Your task to perform on an android device: move a message to another label in the gmail app Image 0: 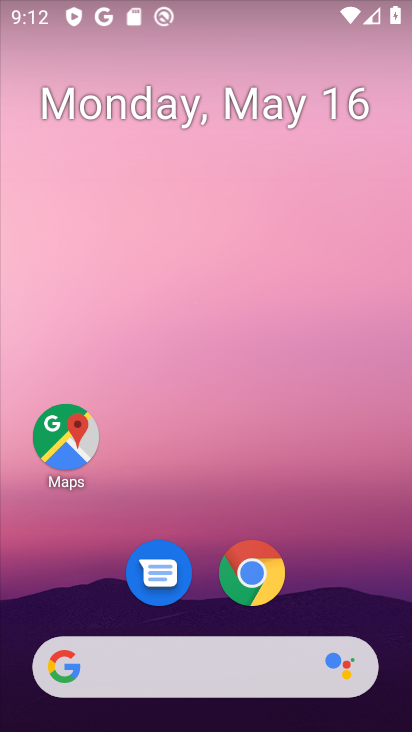
Step 0: drag from (373, 588) to (361, 164)
Your task to perform on an android device: move a message to another label in the gmail app Image 1: 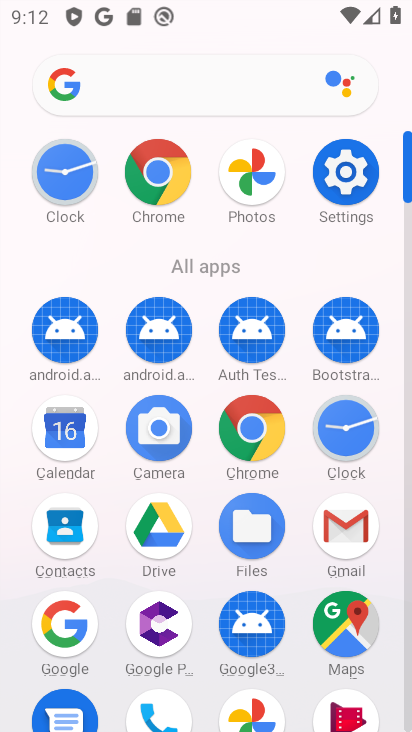
Step 1: click (340, 528)
Your task to perform on an android device: move a message to another label in the gmail app Image 2: 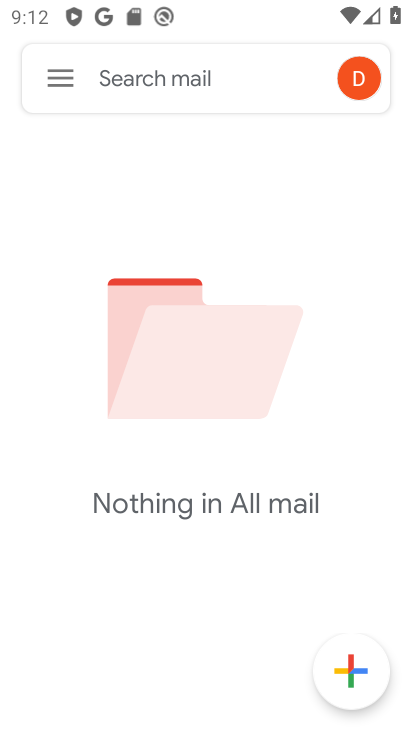
Step 2: click (63, 79)
Your task to perform on an android device: move a message to another label in the gmail app Image 3: 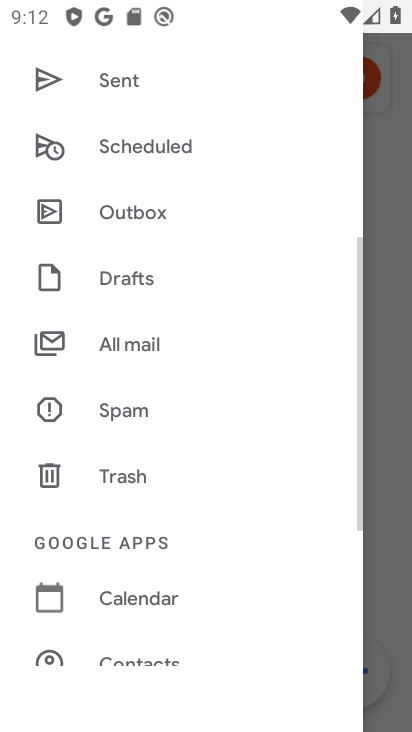
Step 3: drag from (239, 622) to (272, 256)
Your task to perform on an android device: move a message to another label in the gmail app Image 4: 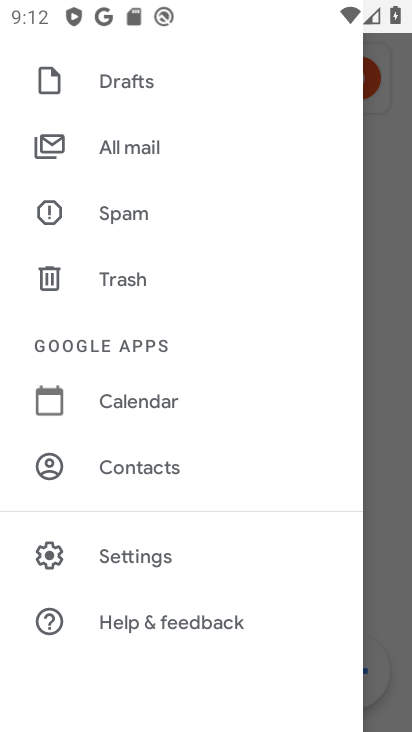
Step 4: drag from (159, 178) to (213, 685)
Your task to perform on an android device: move a message to another label in the gmail app Image 5: 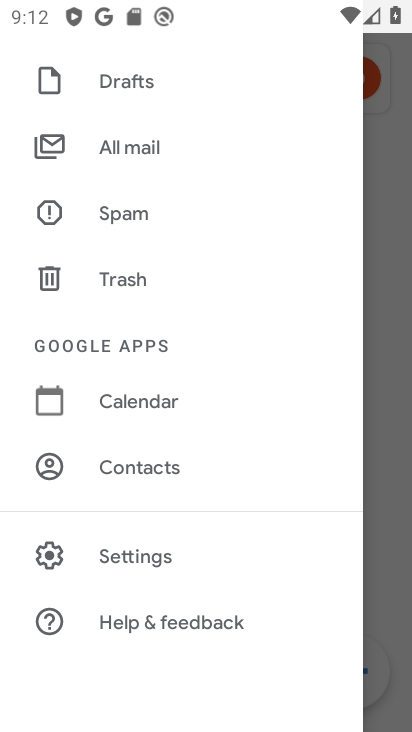
Step 5: click (143, 145)
Your task to perform on an android device: move a message to another label in the gmail app Image 6: 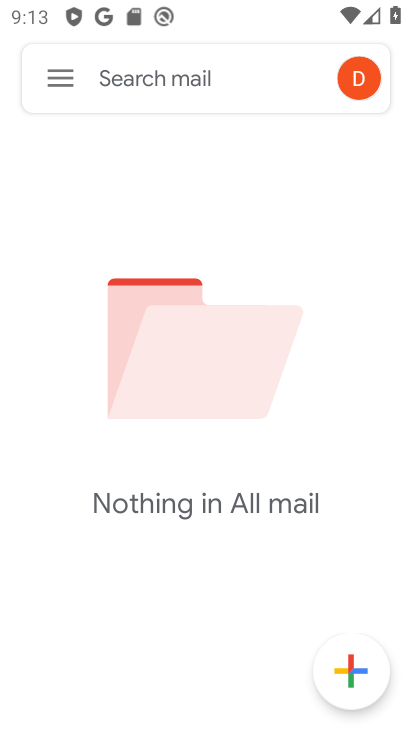
Step 6: task complete